Your task to perform on an android device: toggle wifi Image 0: 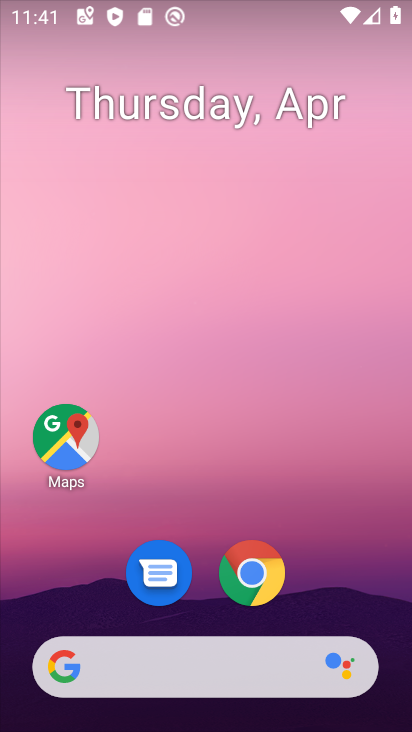
Step 0: drag from (321, 420) to (320, 80)
Your task to perform on an android device: toggle wifi Image 1: 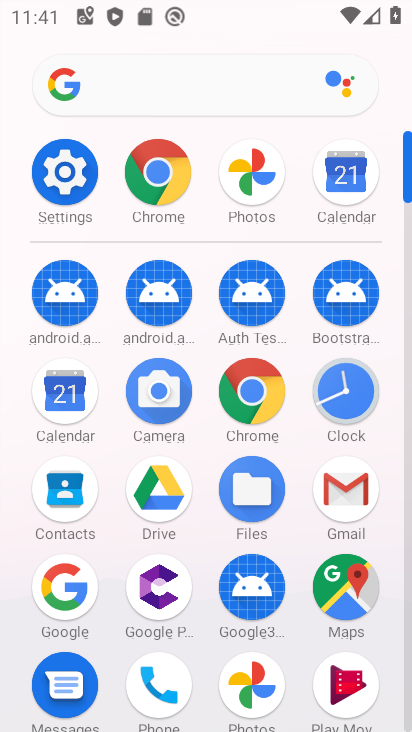
Step 1: click (57, 168)
Your task to perform on an android device: toggle wifi Image 2: 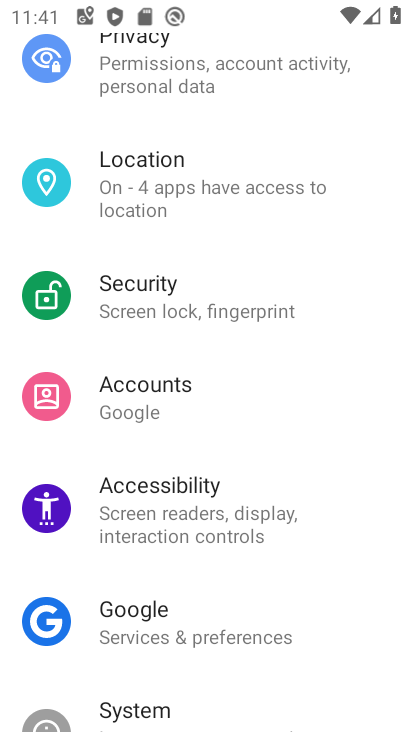
Step 2: drag from (287, 660) to (292, 241)
Your task to perform on an android device: toggle wifi Image 3: 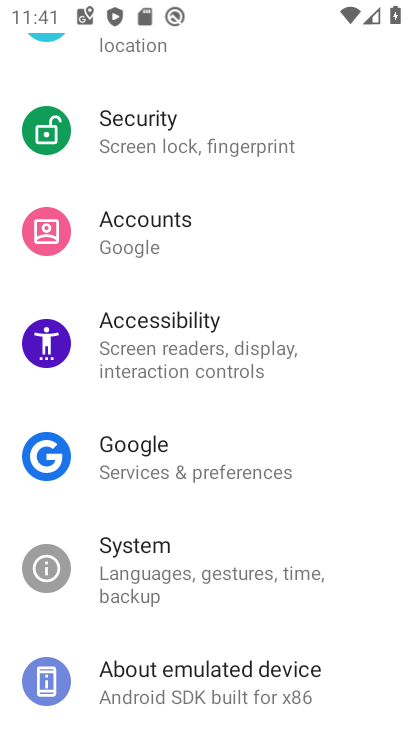
Step 3: drag from (265, 169) to (263, 668)
Your task to perform on an android device: toggle wifi Image 4: 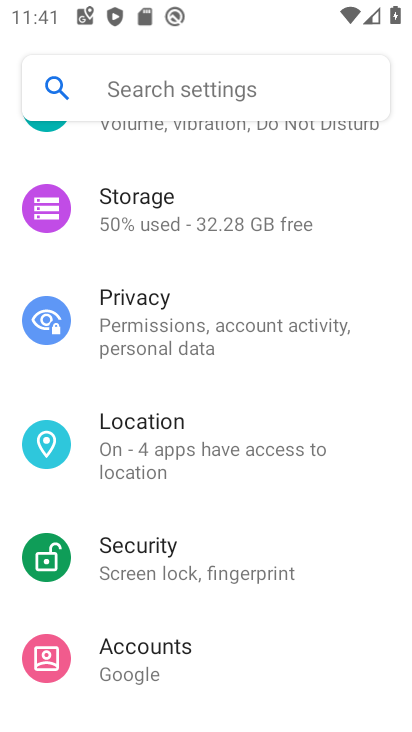
Step 4: drag from (244, 241) to (263, 731)
Your task to perform on an android device: toggle wifi Image 5: 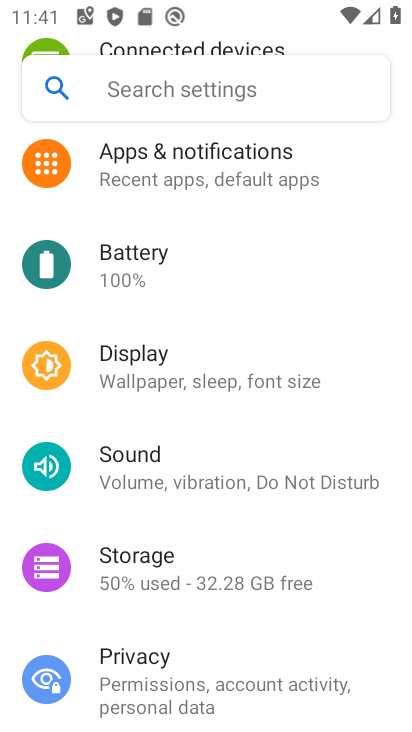
Step 5: drag from (279, 251) to (277, 620)
Your task to perform on an android device: toggle wifi Image 6: 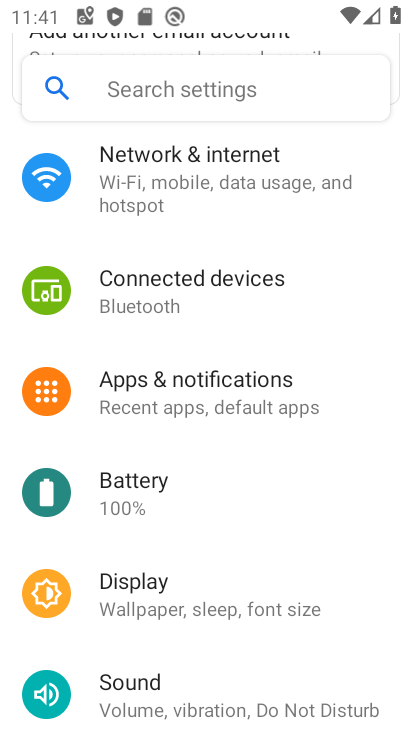
Step 6: click (213, 179)
Your task to perform on an android device: toggle wifi Image 7: 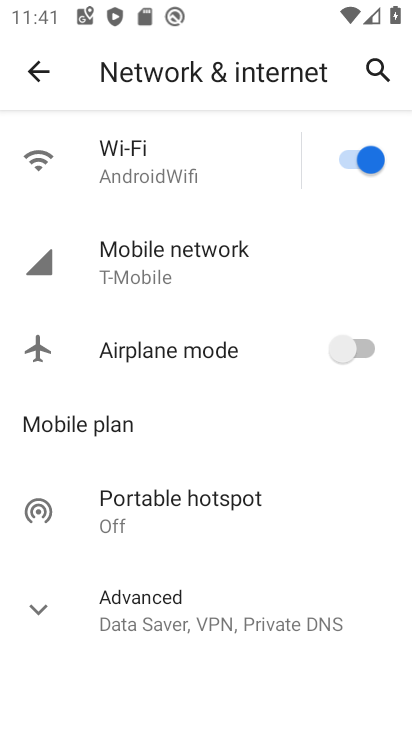
Step 7: click (346, 166)
Your task to perform on an android device: toggle wifi Image 8: 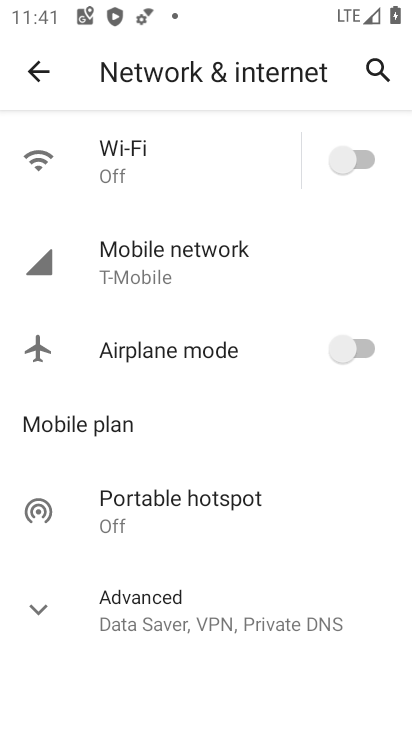
Step 8: task complete